Your task to perform on an android device: Go to accessibility settings Image 0: 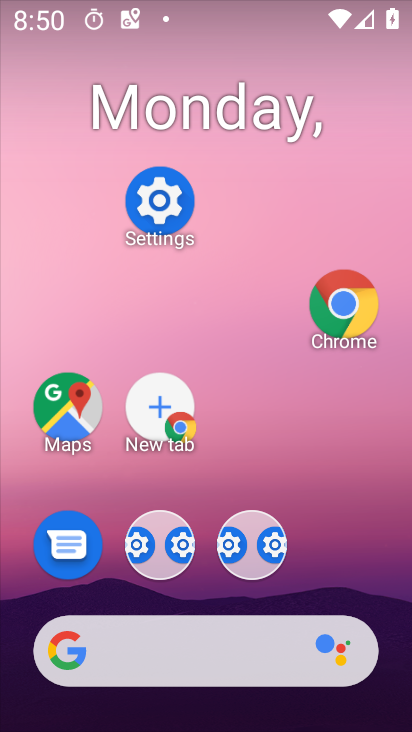
Step 0: drag from (292, 441) to (181, 161)
Your task to perform on an android device: Go to accessibility settings Image 1: 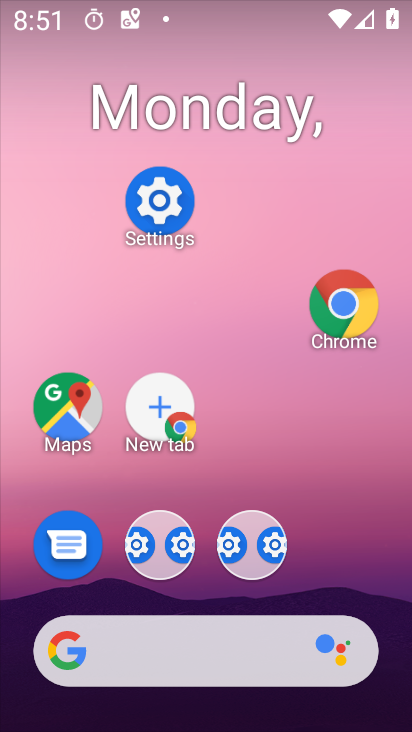
Step 1: drag from (380, 553) to (237, 21)
Your task to perform on an android device: Go to accessibility settings Image 2: 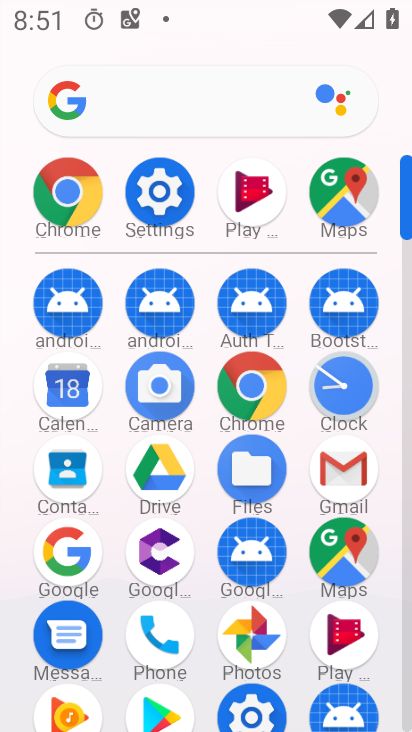
Step 2: click (394, 634)
Your task to perform on an android device: Go to accessibility settings Image 3: 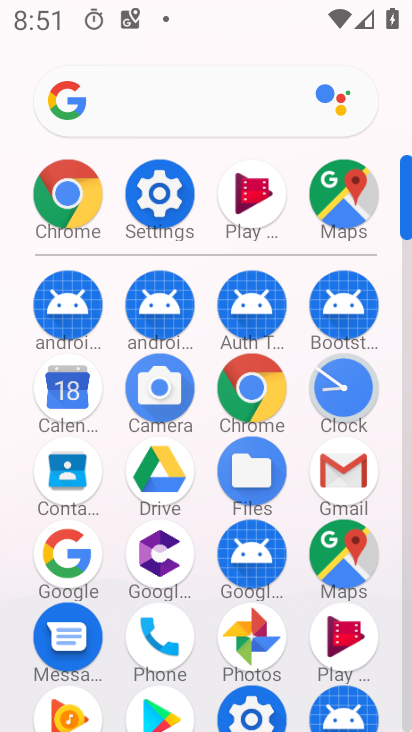
Step 3: click (396, 656)
Your task to perform on an android device: Go to accessibility settings Image 4: 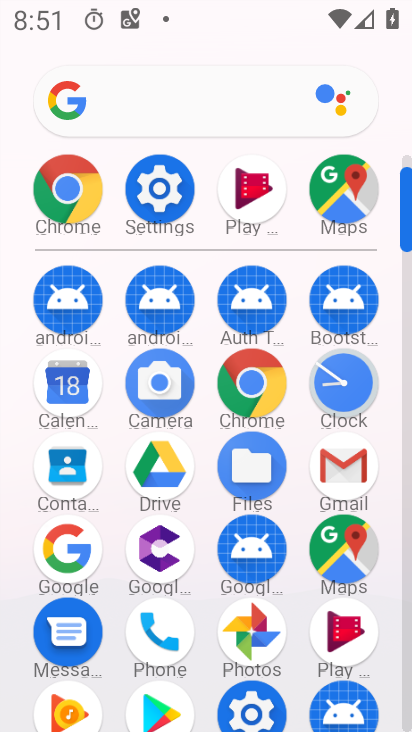
Step 4: click (389, 629)
Your task to perform on an android device: Go to accessibility settings Image 5: 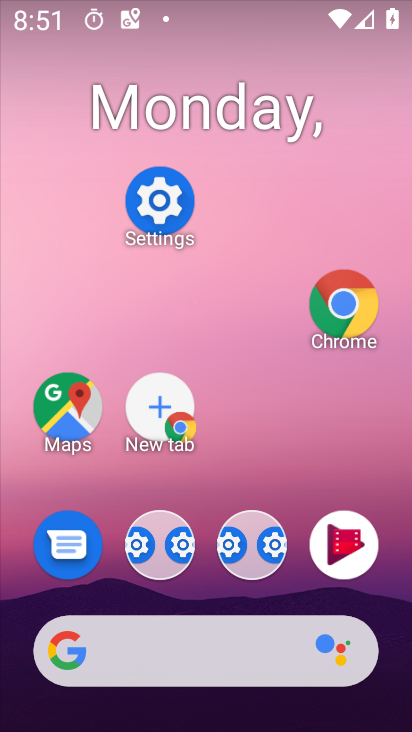
Step 5: drag from (368, 648) to (237, 163)
Your task to perform on an android device: Go to accessibility settings Image 6: 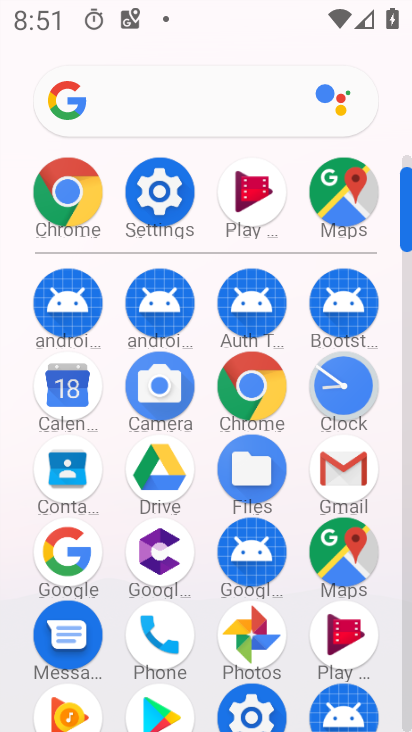
Step 6: drag from (398, 631) to (410, 714)
Your task to perform on an android device: Go to accessibility settings Image 7: 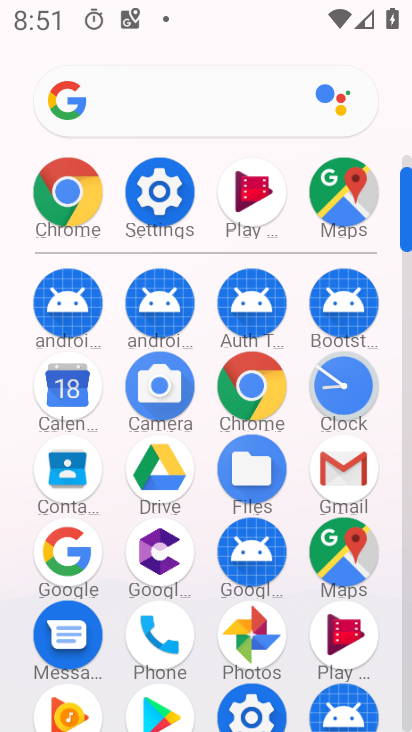
Step 7: click (161, 197)
Your task to perform on an android device: Go to accessibility settings Image 8: 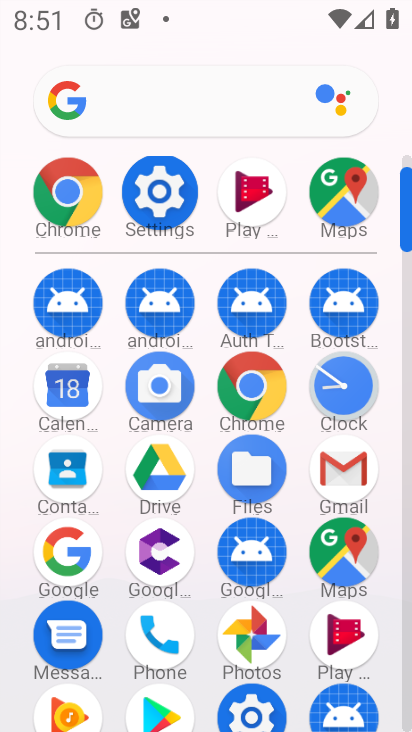
Step 8: click (163, 196)
Your task to perform on an android device: Go to accessibility settings Image 9: 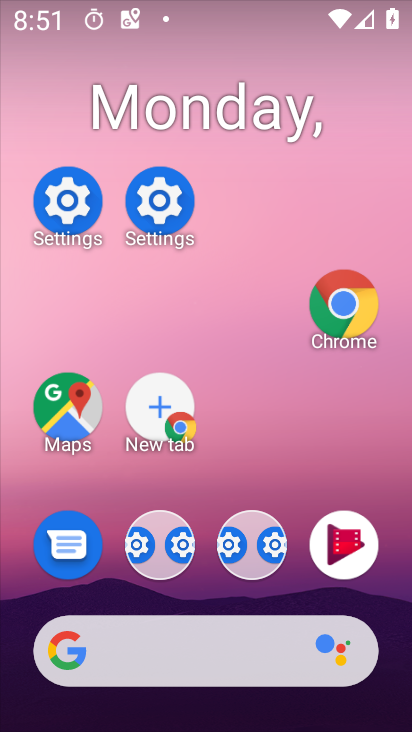
Step 9: drag from (280, 395) to (211, 9)
Your task to perform on an android device: Go to accessibility settings Image 10: 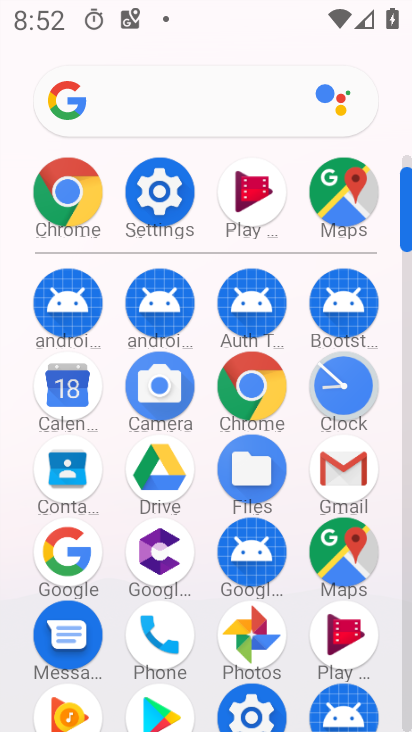
Step 10: click (152, 202)
Your task to perform on an android device: Go to accessibility settings Image 11: 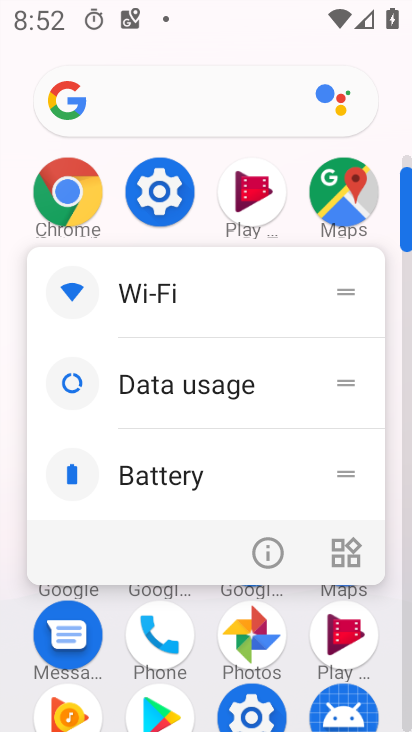
Step 11: drag from (156, 189) to (187, 239)
Your task to perform on an android device: Go to accessibility settings Image 12: 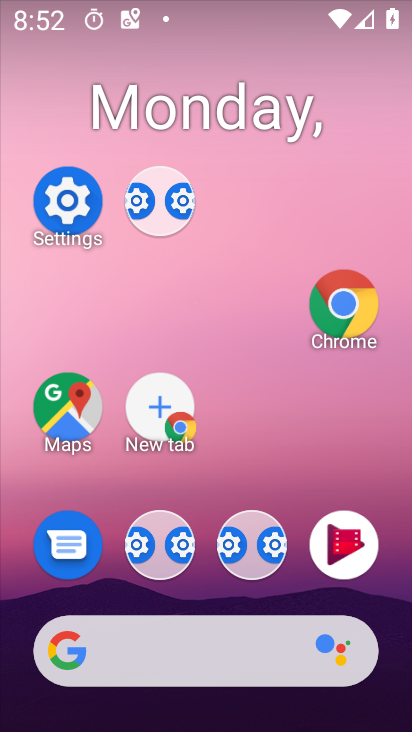
Step 12: drag from (295, 673) to (241, 52)
Your task to perform on an android device: Go to accessibility settings Image 13: 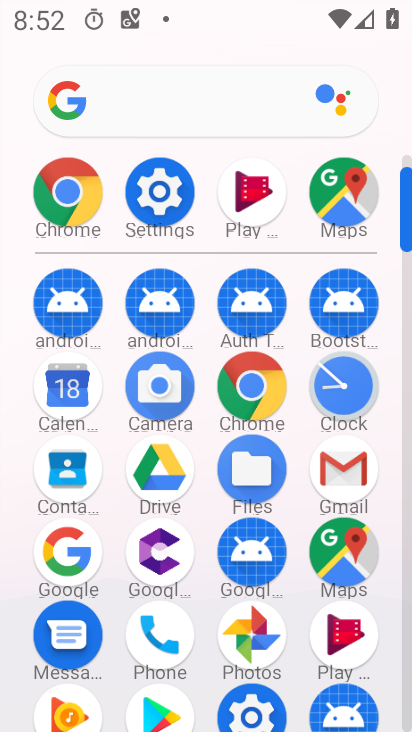
Step 13: click (404, 580)
Your task to perform on an android device: Go to accessibility settings Image 14: 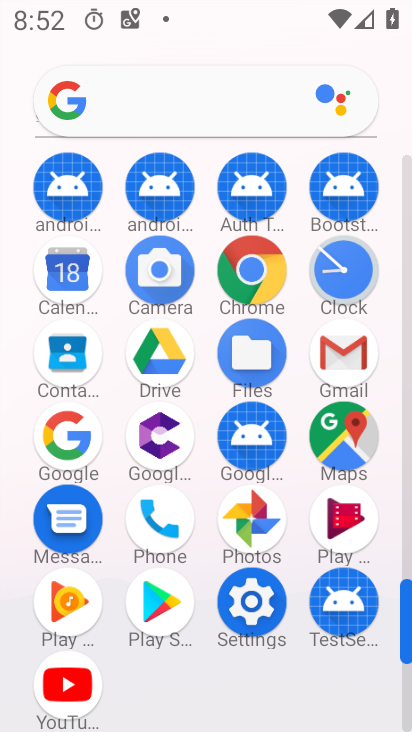
Step 14: click (244, 620)
Your task to perform on an android device: Go to accessibility settings Image 15: 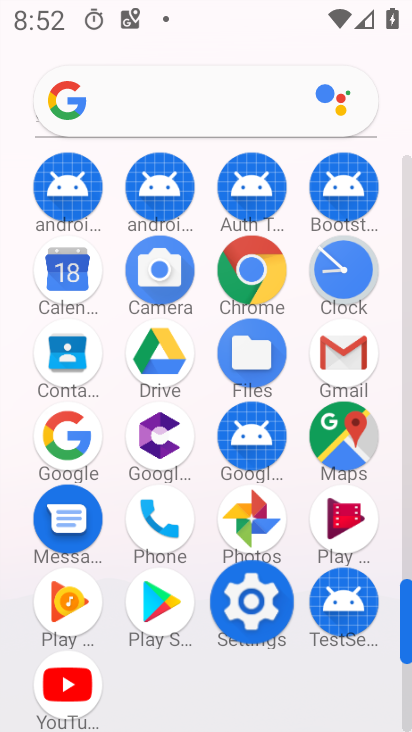
Step 15: click (251, 608)
Your task to perform on an android device: Go to accessibility settings Image 16: 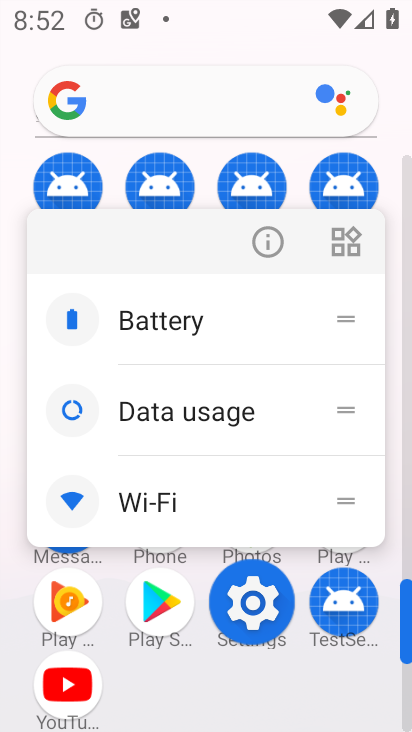
Step 16: click (251, 608)
Your task to perform on an android device: Go to accessibility settings Image 17: 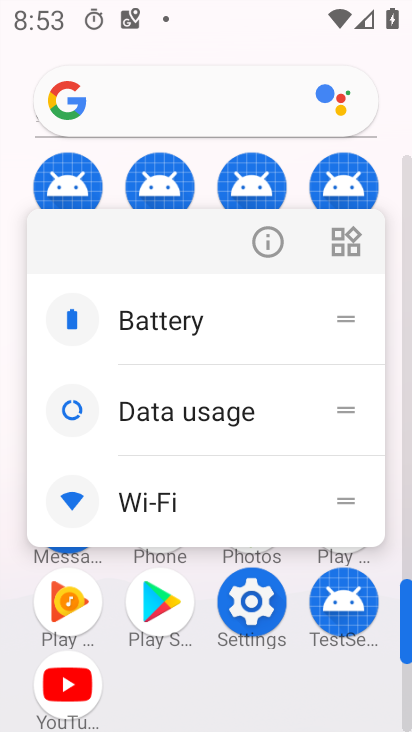
Step 17: click (257, 597)
Your task to perform on an android device: Go to accessibility settings Image 18: 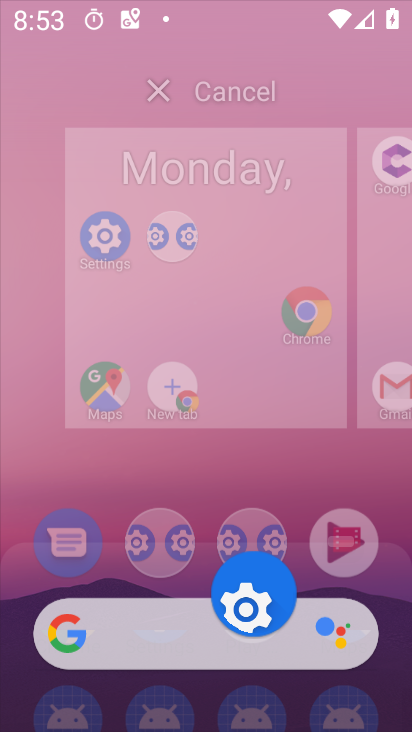
Step 18: click (248, 597)
Your task to perform on an android device: Go to accessibility settings Image 19: 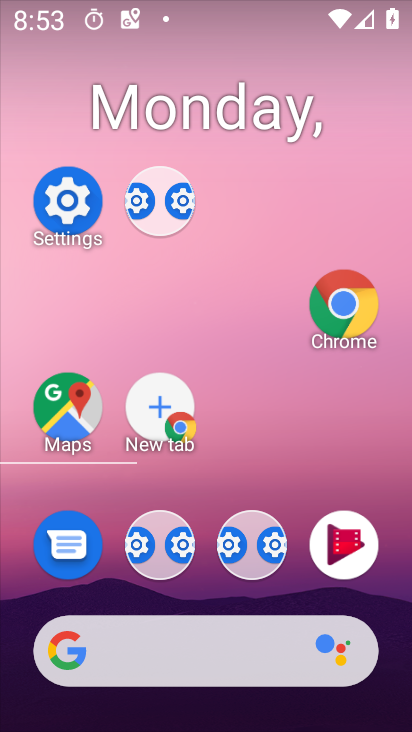
Step 19: click (143, 86)
Your task to perform on an android device: Go to accessibility settings Image 20: 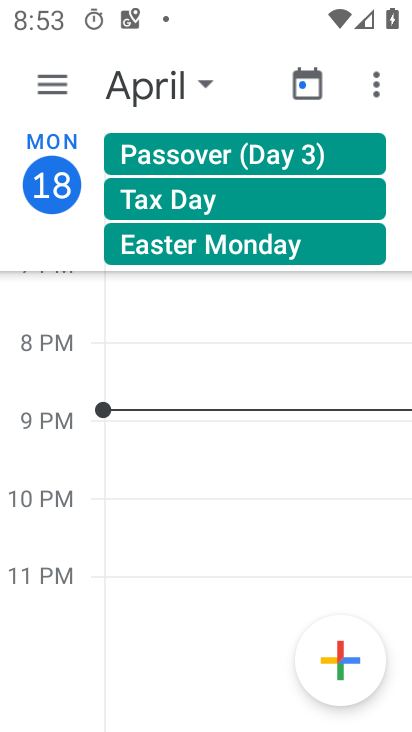
Step 20: press home button
Your task to perform on an android device: Go to accessibility settings Image 21: 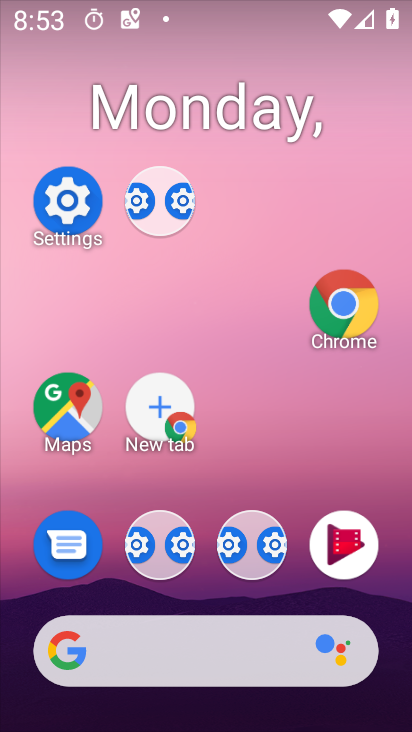
Step 21: drag from (369, 674) to (179, 31)
Your task to perform on an android device: Go to accessibility settings Image 22: 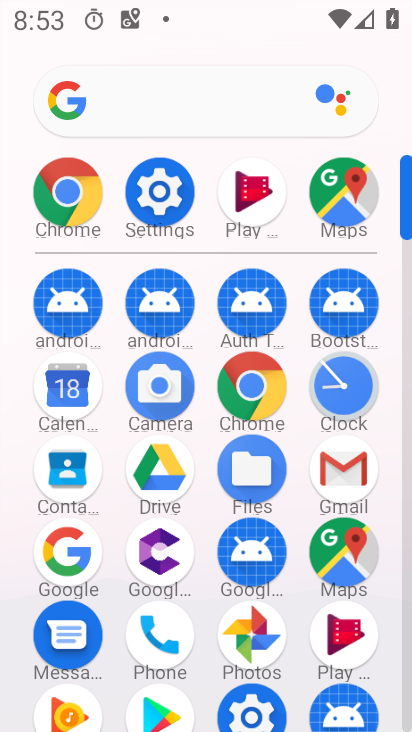
Step 22: click (396, 697)
Your task to perform on an android device: Go to accessibility settings Image 23: 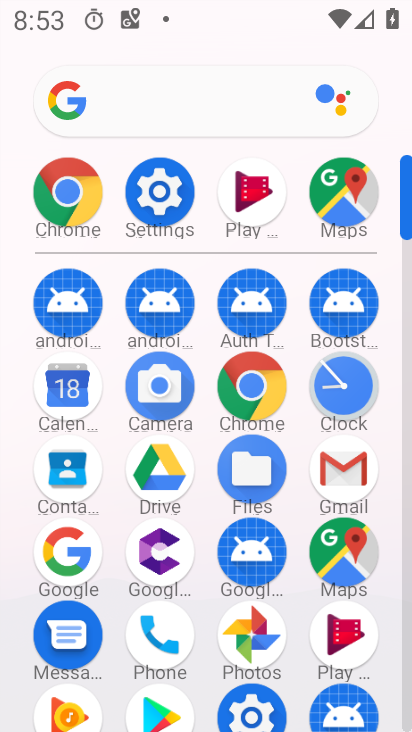
Step 23: click (396, 697)
Your task to perform on an android device: Go to accessibility settings Image 24: 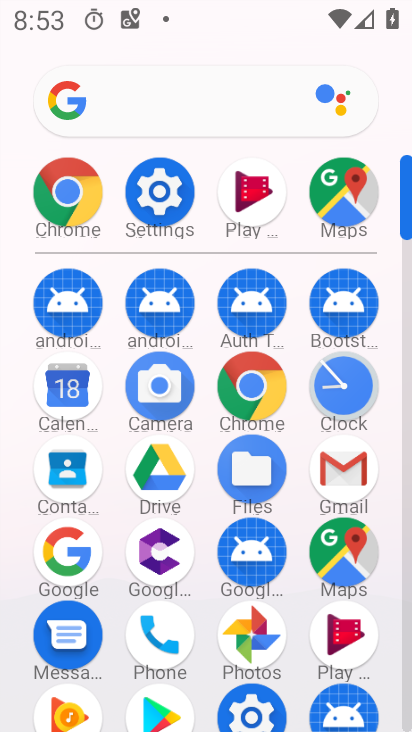
Step 24: click (402, 674)
Your task to perform on an android device: Go to accessibility settings Image 25: 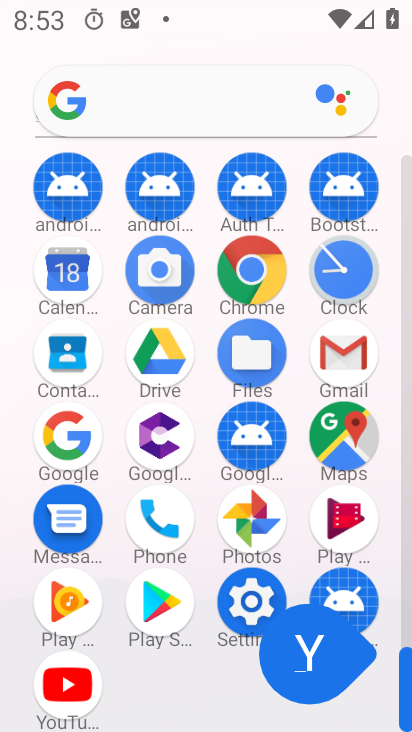
Step 25: click (399, 673)
Your task to perform on an android device: Go to accessibility settings Image 26: 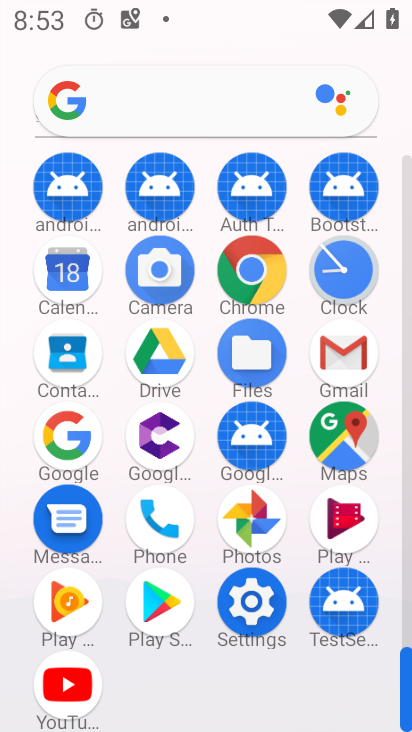
Step 26: click (251, 604)
Your task to perform on an android device: Go to accessibility settings Image 27: 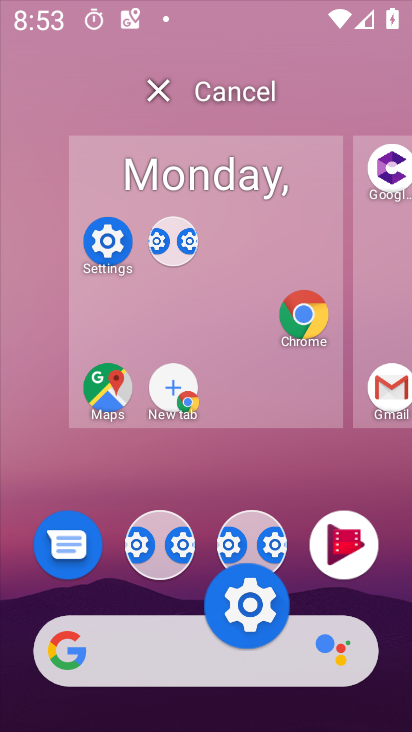
Step 27: click (247, 607)
Your task to perform on an android device: Go to accessibility settings Image 28: 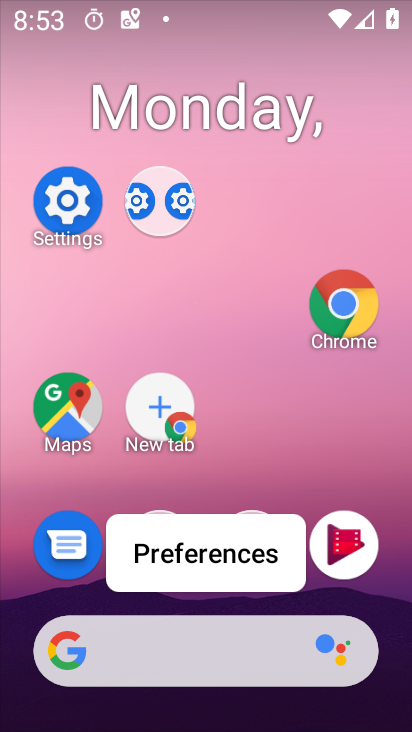
Step 28: click (54, 196)
Your task to perform on an android device: Go to accessibility settings Image 29: 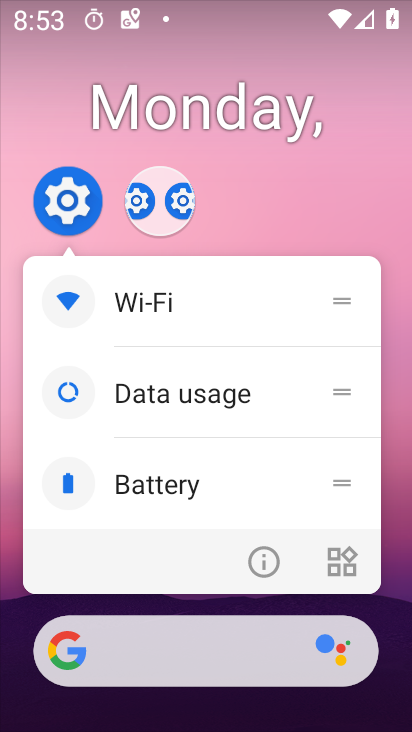
Step 29: click (64, 201)
Your task to perform on an android device: Go to accessibility settings Image 30: 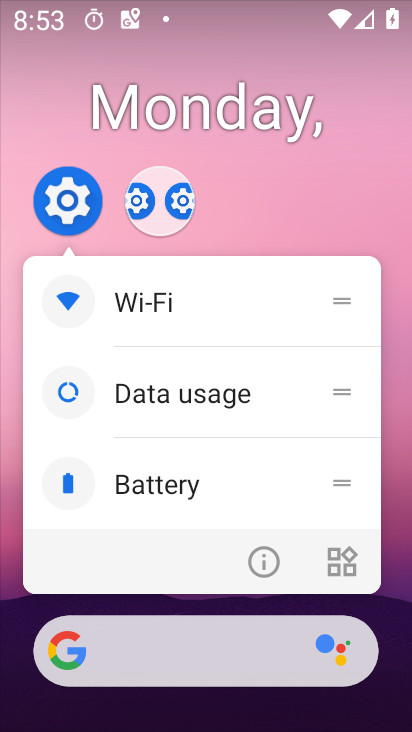
Step 30: click (64, 201)
Your task to perform on an android device: Go to accessibility settings Image 31: 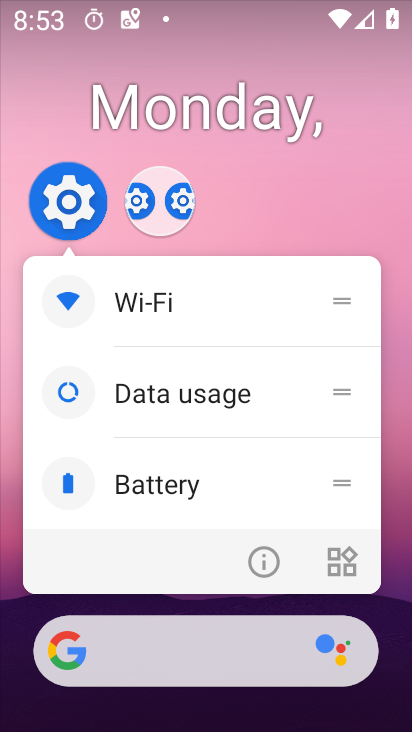
Step 31: click (64, 201)
Your task to perform on an android device: Go to accessibility settings Image 32: 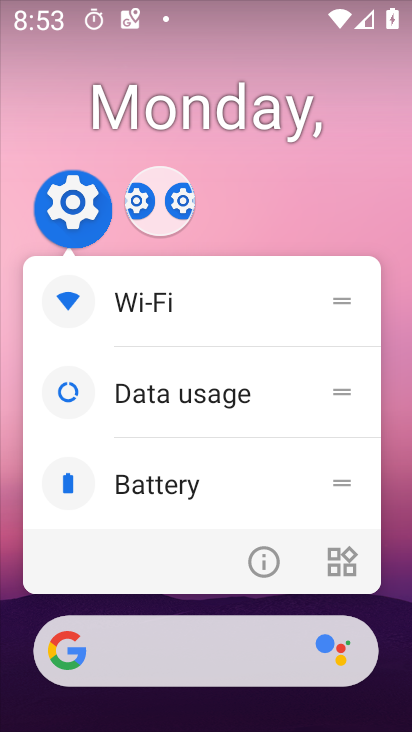
Step 32: click (83, 190)
Your task to perform on an android device: Go to accessibility settings Image 33: 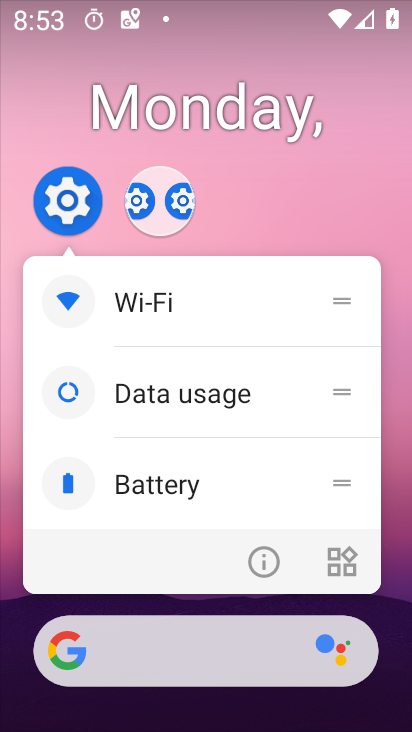
Step 33: drag from (73, 194) to (148, 438)
Your task to perform on an android device: Go to accessibility settings Image 34: 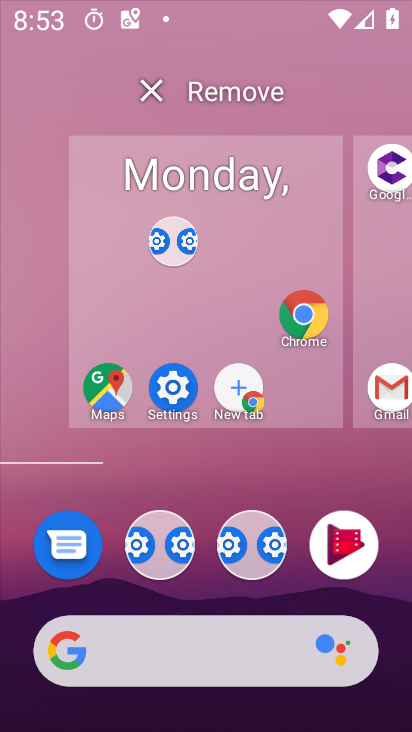
Step 34: click (275, 194)
Your task to perform on an android device: Go to accessibility settings Image 35: 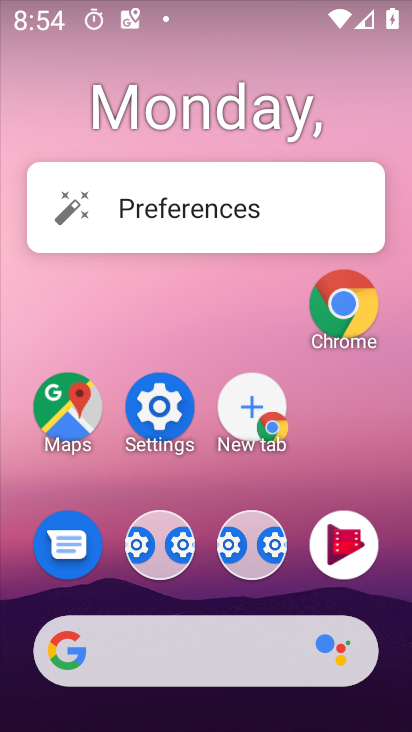
Step 35: click (150, 405)
Your task to perform on an android device: Go to accessibility settings Image 36: 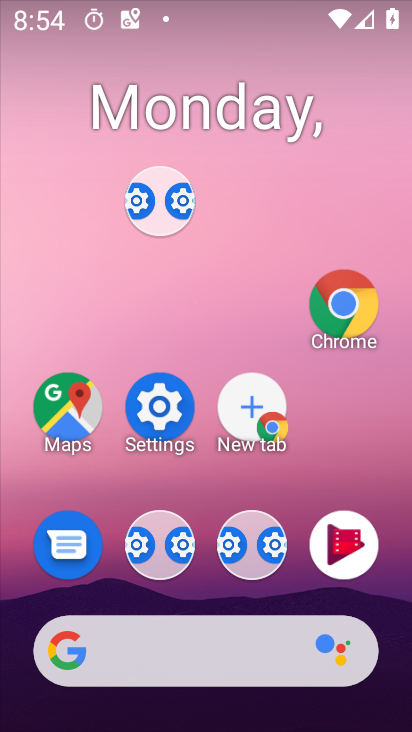
Step 36: click (154, 412)
Your task to perform on an android device: Go to accessibility settings Image 37: 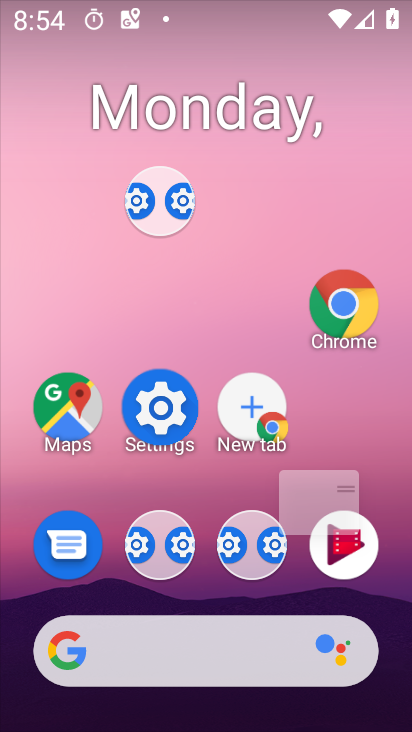
Step 37: drag from (161, 406) to (191, 363)
Your task to perform on an android device: Go to accessibility settings Image 38: 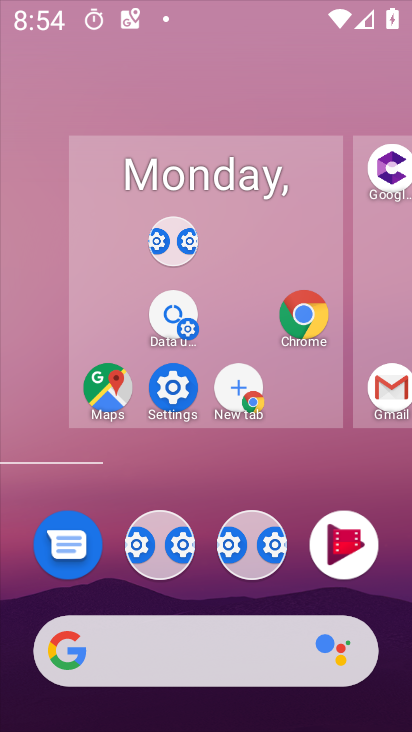
Step 38: drag from (151, 88) to (147, 148)
Your task to perform on an android device: Go to accessibility settings Image 39: 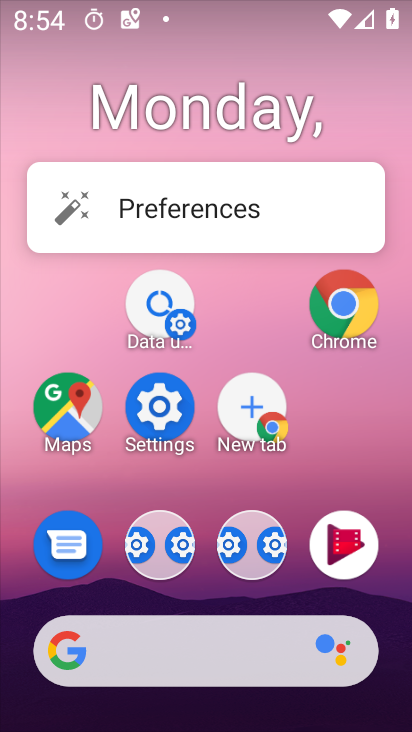
Step 39: drag from (170, 402) to (149, 446)
Your task to perform on an android device: Go to accessibility settings Image 40: 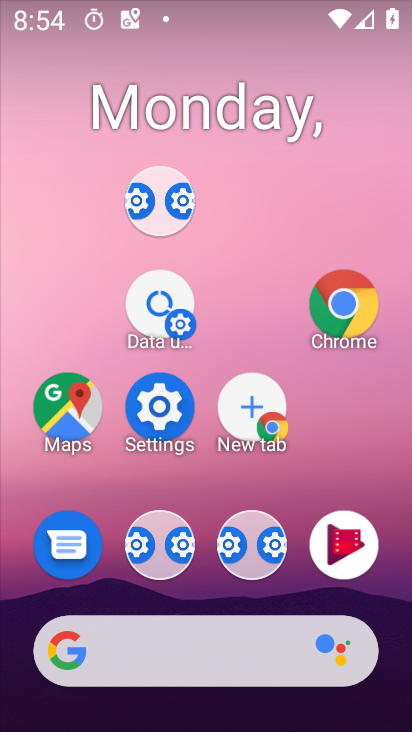
Step 40: click (175, 432)
Your task to perform on an android device: Go to accessibility settings Image 41: 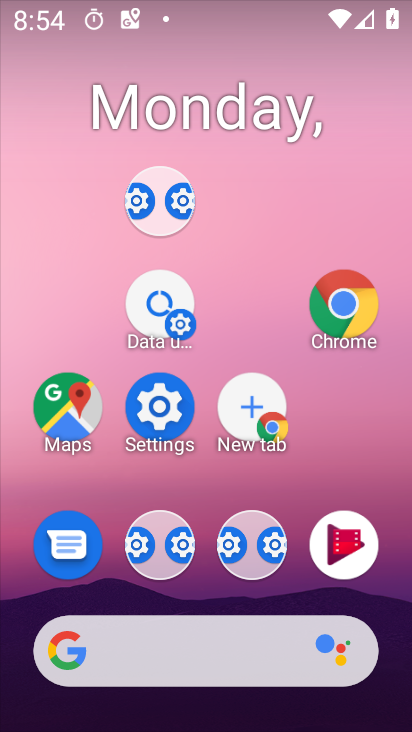
Step 41: click (166, 415)
Your task to perform on an android device: Go to accessibility settings Image 42: 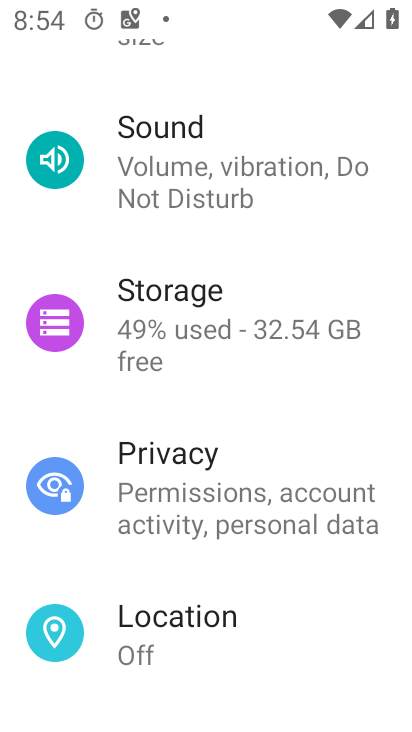
Step 42: drag from (211, 491) to (204, 234)
Your task to perform on an android device: Go to accessibility settings Image 43: 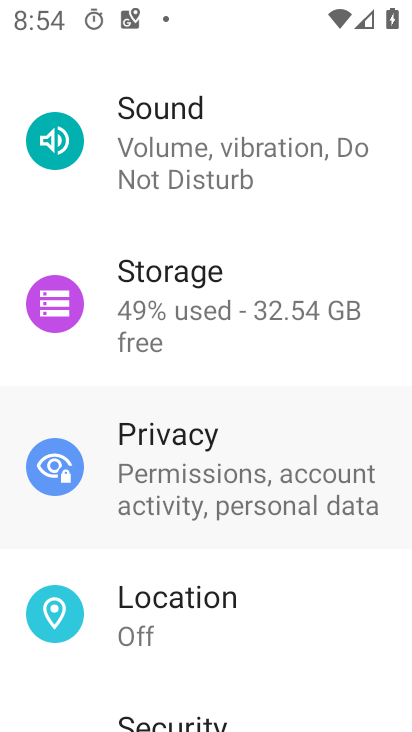
Step 43: drag from (274, 564) to (246, 133)
Your task to perform on an android device: Go to accessibility settings Image 44: 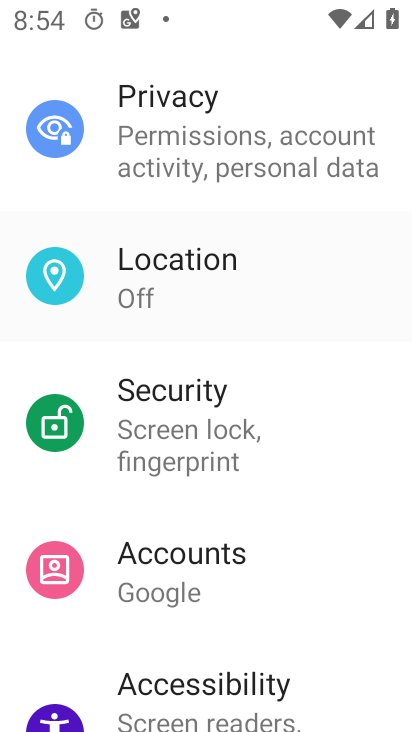
Step 44: drag from (214, 598) to (141, 116)
Your task to perform on an android device: Go to accessibility settings Image 45: 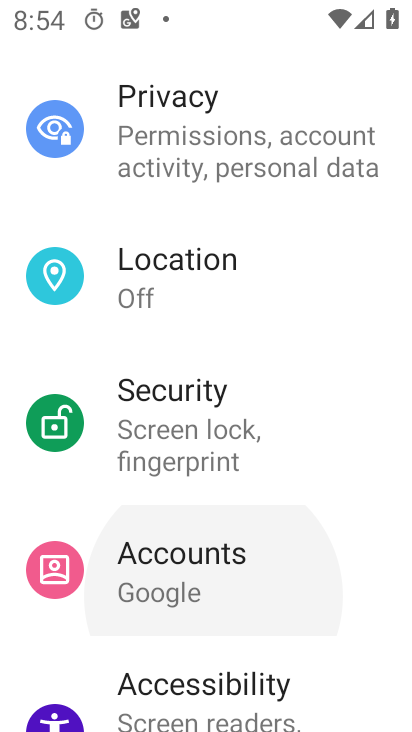
Step 45: drag from (214, 511) to (232, 102)
Your task to perform on an android device: Go to accessibility settings Image 46: 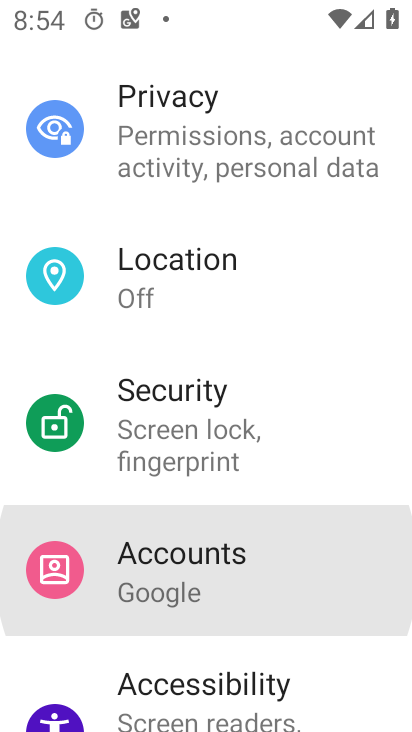
Step 46: drag from (242, 642) to (276, 183)
Your task to perform on an android device: Go to accessibility settings Image 47: 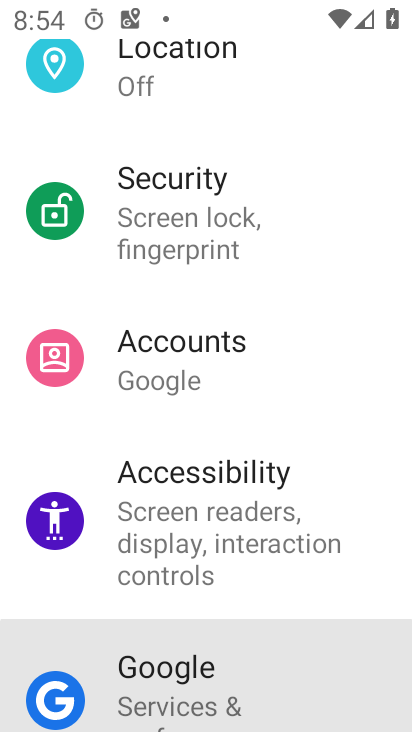
Step 47: drag from (292, 423) to (281, 184)
Your task to perform on an android device: Go to accessibility settings Image 48: 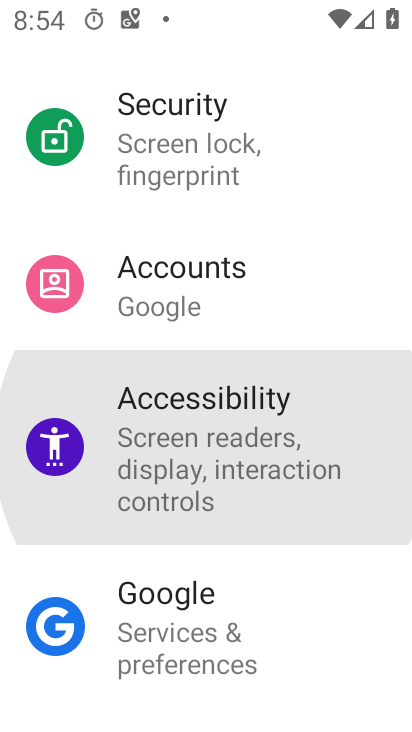
Step 48: drag from (263, 355) to (263, 150)
Your task to perform on an android device: Go to accessibility settings Image 49: 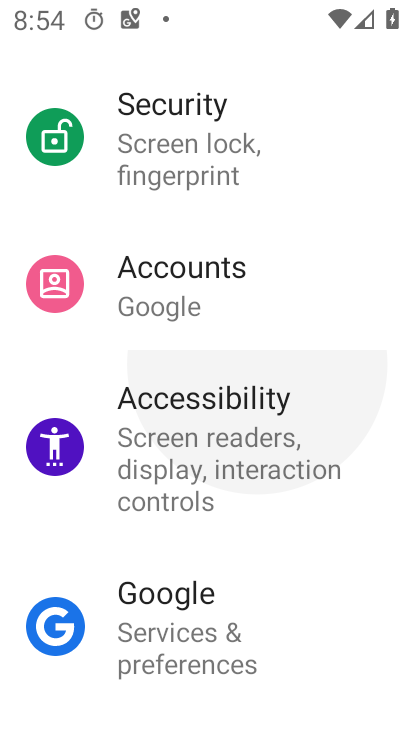
Step 49: drag from (252, 552) to (246, 127)
Your task to perform on an android device: Go to accessibility settings Image 50: 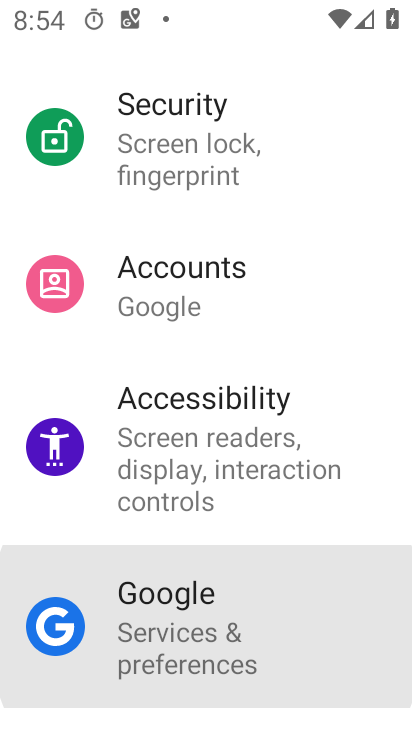
Step 50: drag from (288, 605) to (289, 116)
Your task to perform on an android device: Go to accessibility settings Image 51: 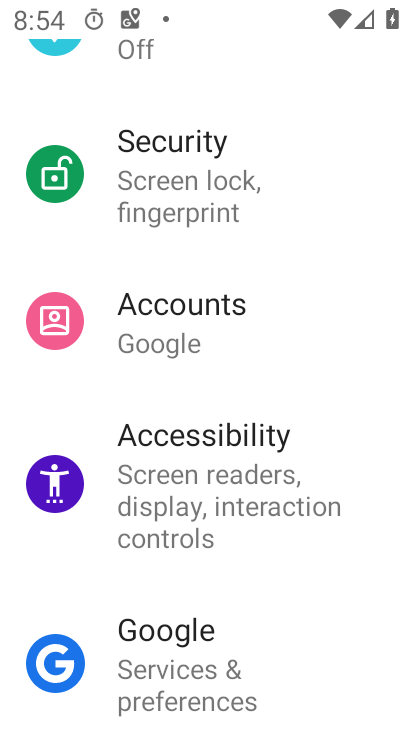
Step 51: click (224, 251)
Your task to perform on an android device: Go to accessibility settings Image 52: 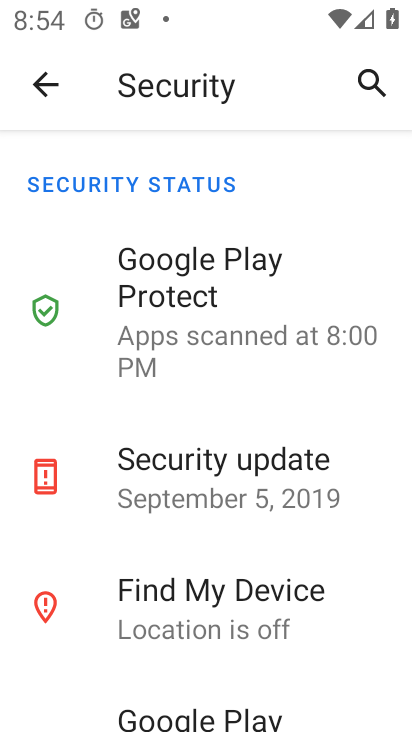
Step 52: click (38, 84)
Your task to perform on an android device: Go to accessibility settings Image 53: 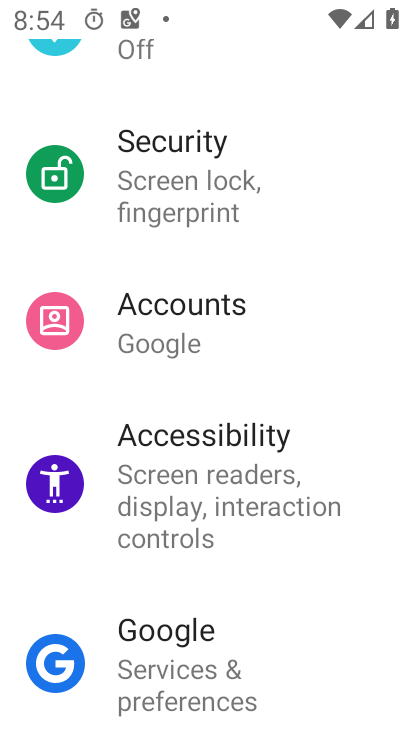
Step 53: drag from (263, 661) to (255, 214)
Your task to perform on an android device: Go to accessibility settings Image 54: 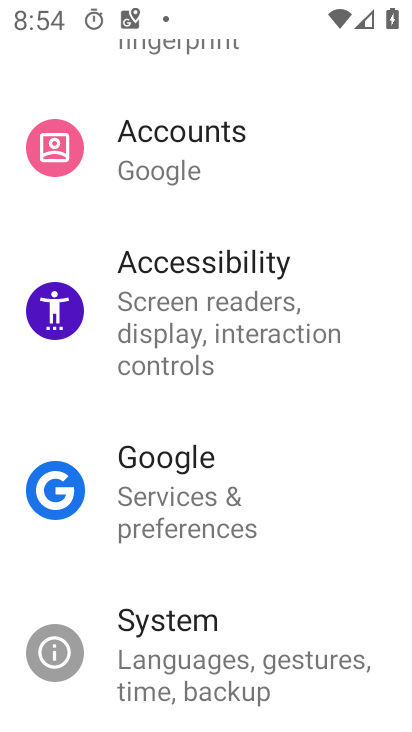
Step 54: click (183, 263)
Your task to perform on an android device: Go to accessibility settings Image 55: 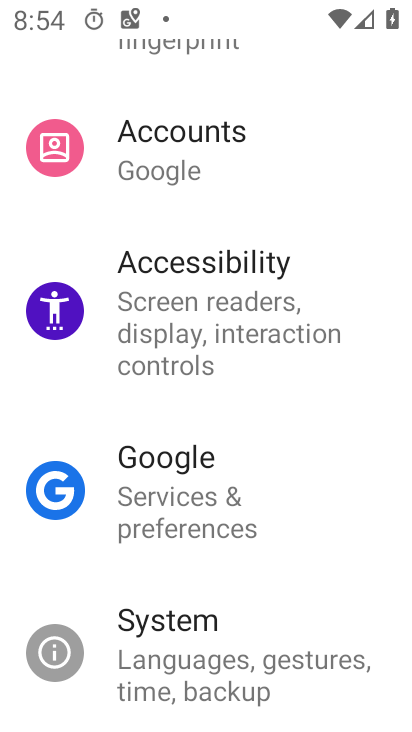
Step 55: click (185, 266)
Your task to perform on an android device: Go to accessibility settings Image 56: 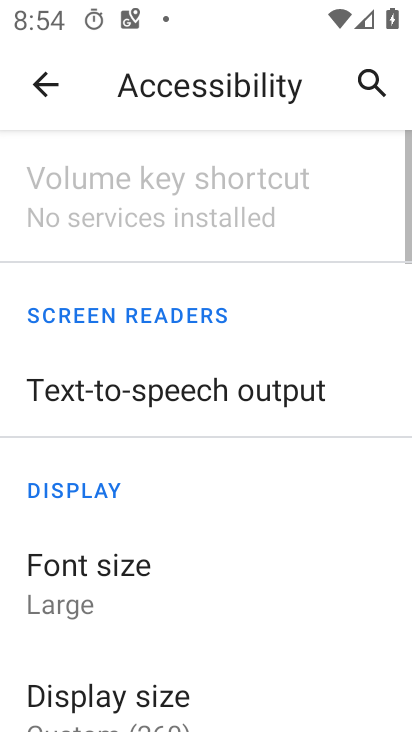
Step 56: click (187, 287)
Your task to perform on an android device: Go to accessibility settings Image 57: 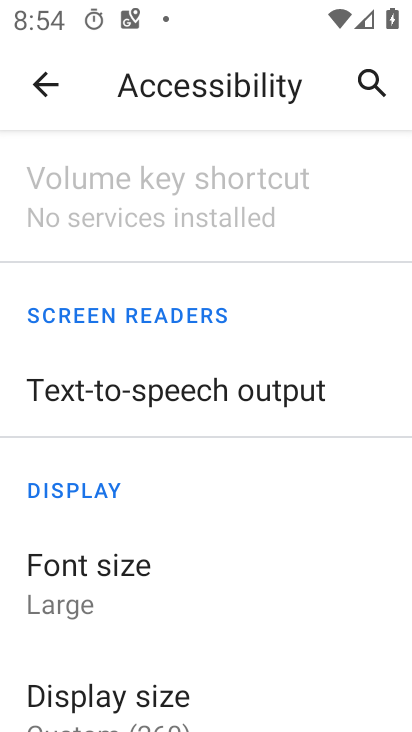
Step 57: task complete